Your task to perform on an android device: Show me popular games on the Play Store Image 0: 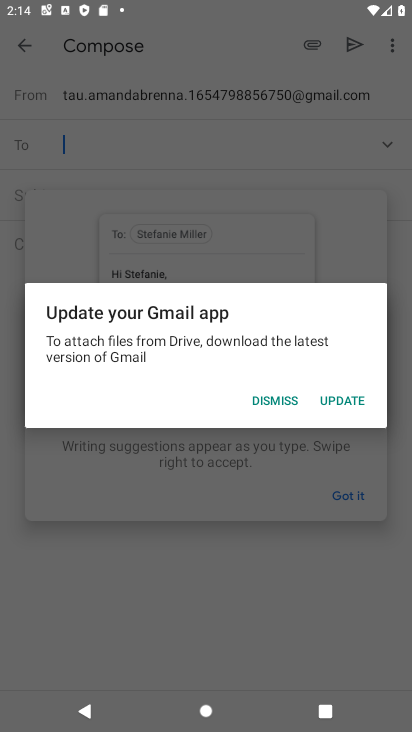
Step 0: press home button
Your task to perform on an android device: Show me popular games on the Play Store Image 1: 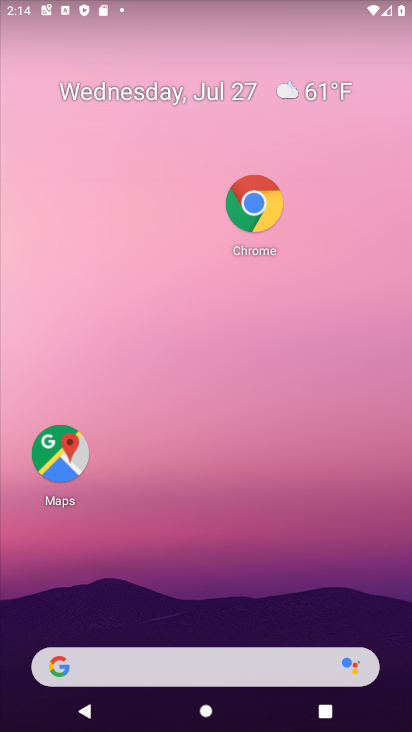
Step 1: drag from (238, 608) to (210, 257)
Your task to perform on an android device: Show me popular games on the Play Store Image 2: 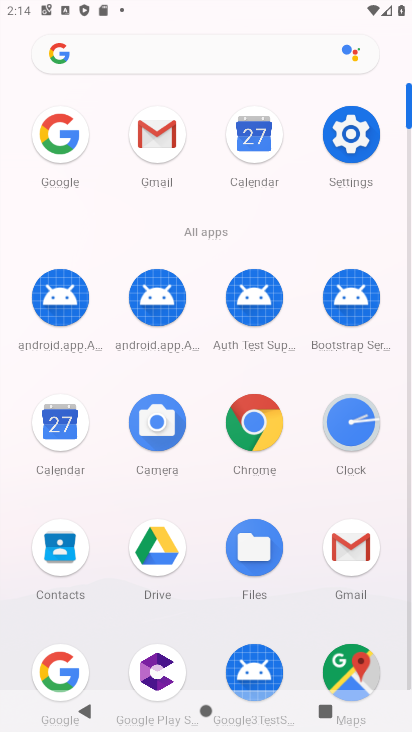
Step 2: drag from (104, 573) to (113, 251)
Your task to perform on an android device: Show me popular games on the Play Store Image 3: 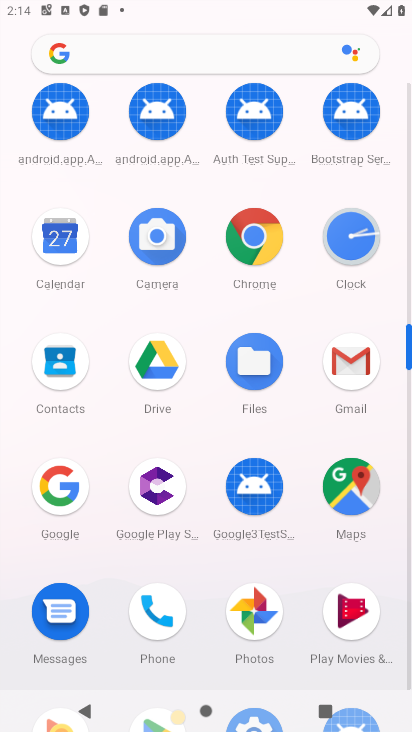
Step 3: drag from (191, 620) to (204, 273)
Your task to perform on an android device: Show me popular games on the Play Store Image 4: 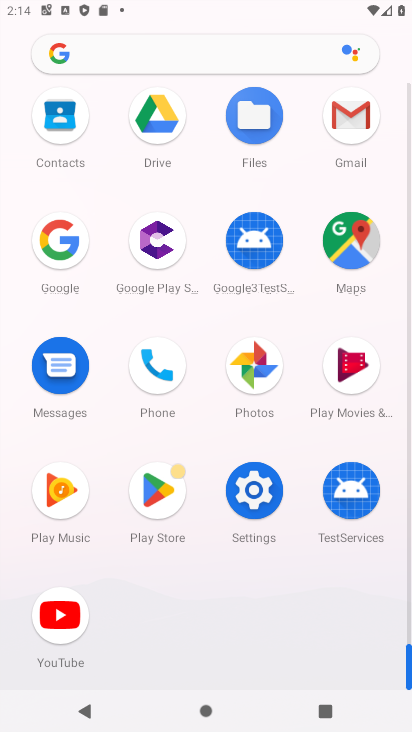
Step 4: click (145, 523)
Your task to perform on an android device: Show me popular games on the Play Store Image 5: 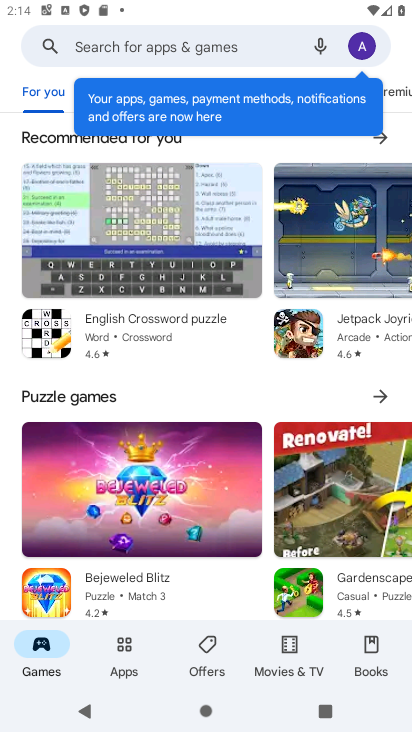
Step 5: click (350, 46)
Your task to perform on an android device: Show me popular games on the Play Store Image 6: 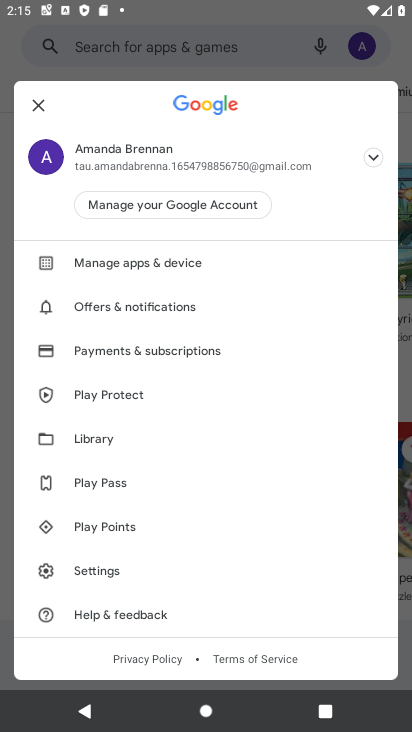
Step 6: click (32, 96)
Your task to perform on an android device: Show me popular games on the Play Store Image 7: 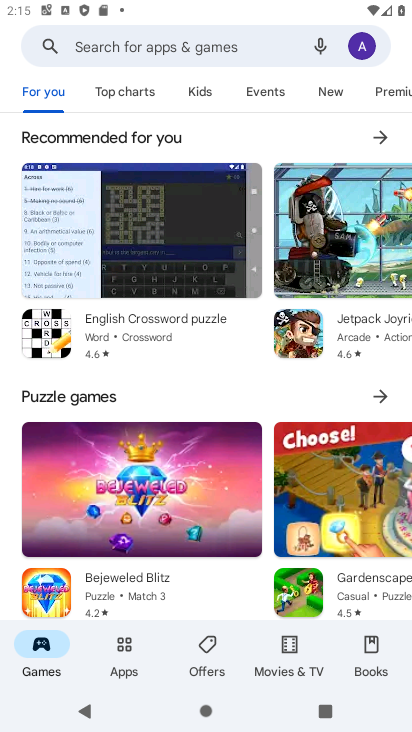
Step 7: click (134, 95)
Your task to perform on an android device: Show me popular games on the Play Store Image 8: 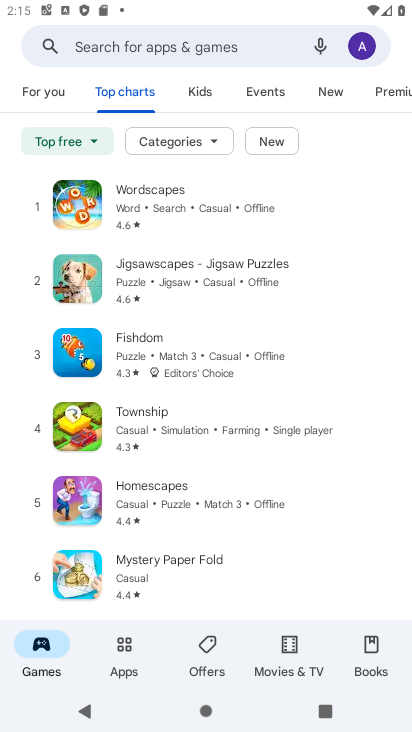
Step 8: task complete